Your task to perform on an android device: Open Google Image 0: 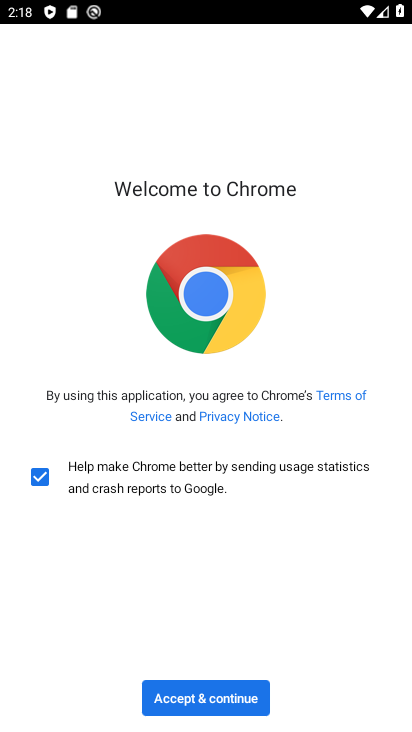
Step 0: click (220, 692)
Your task to perform on an android device: Open Google Image 1: 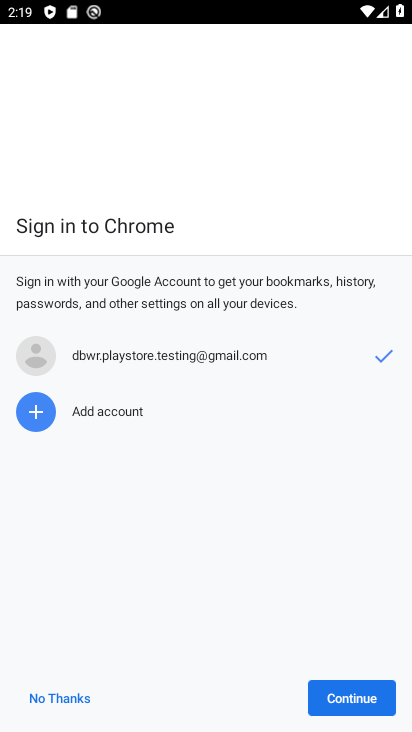
Step 1: click (73, 694)
Your task to perform on an android device: Open Google Image 2: 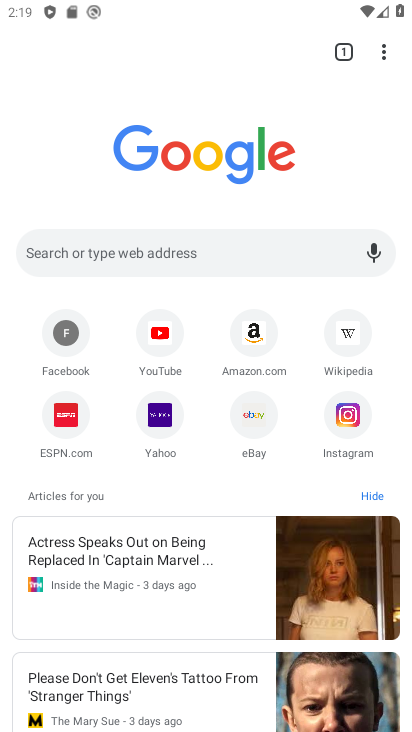
Step 2: task complete